Your task to perform on an android device: see tabs open on other devices in the chrome app Image 0: 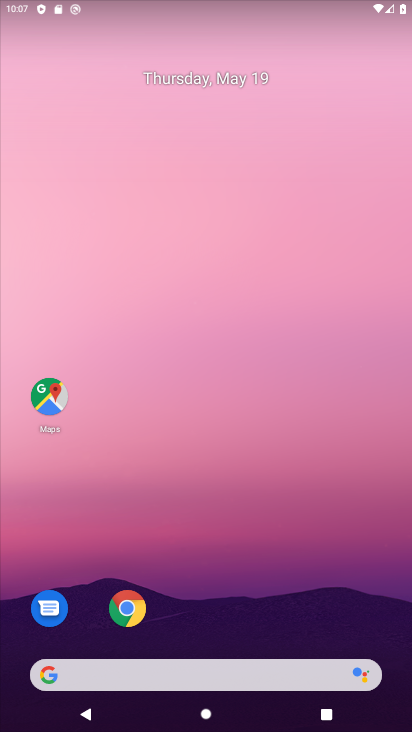
Step 0: click (113, 602)
Your task to perform on an android device: see tabs open on other devices in the chrome app Image 1: 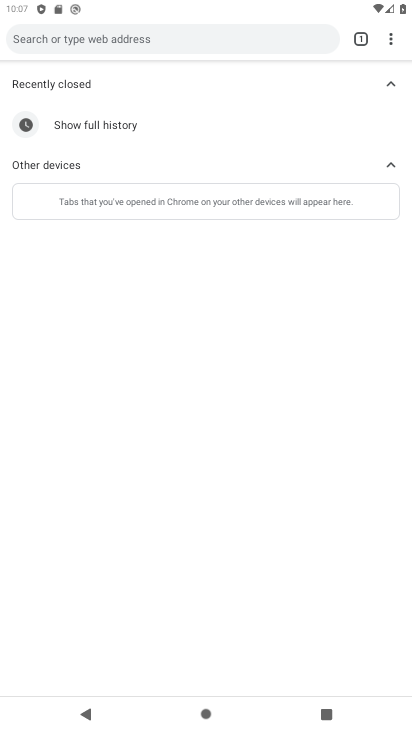
Step 1: click (392, 37)
Your task to perform on an android device: see tabs open on other devices in the chrome app Image 2: 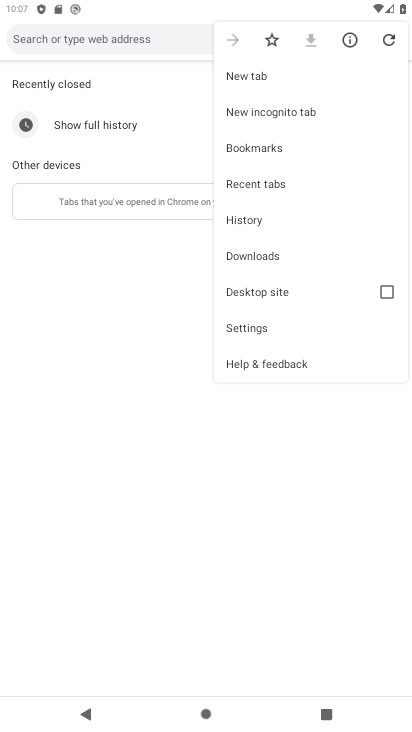
Step 2: click (260, 183)
Your task to perform on an android device: see tabs open on other devices in the chrome app Image 3: 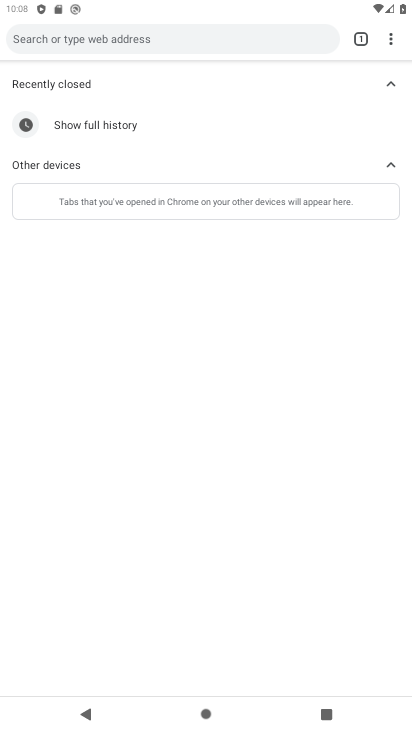
Step 3: click (389, 41)
Your task to perform on an android device: see tabs open on other devices in the chrome app Image 4: 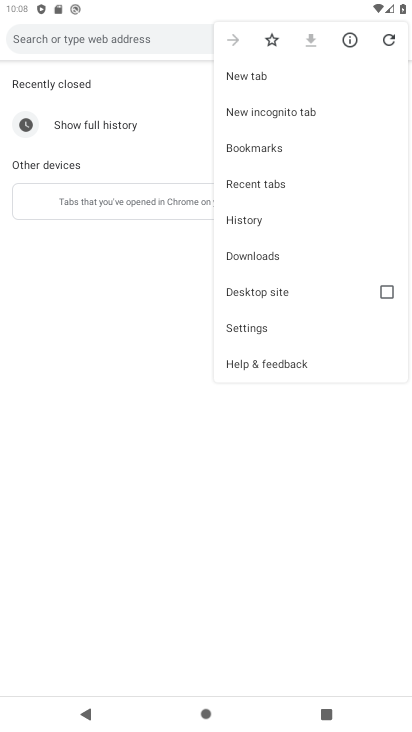
Step 4: click (254, 177)
Your task to perform on an android device: see tabs open on other devices in the chrome app Image 5: 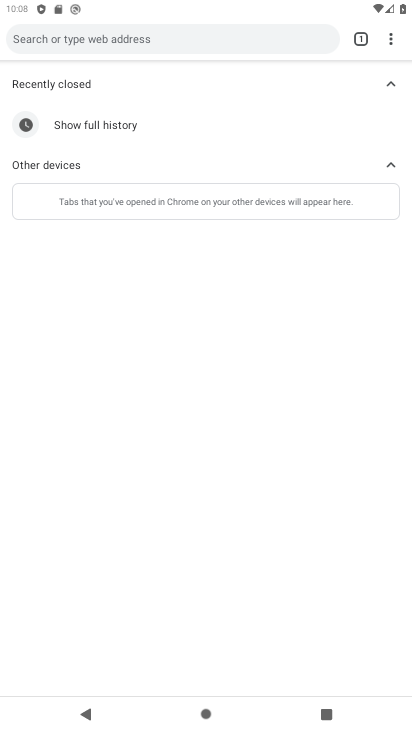
Step 5: task complete